Your task to perform on an android device: Go to privacy settings Image 0: 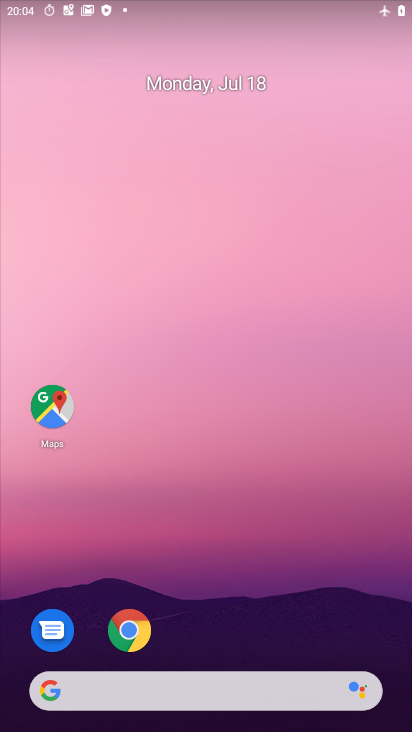
Step 0: drag from (248, 574) to (205, 260)
Your task to perform on an android device: Go to privacy settings Image 1: 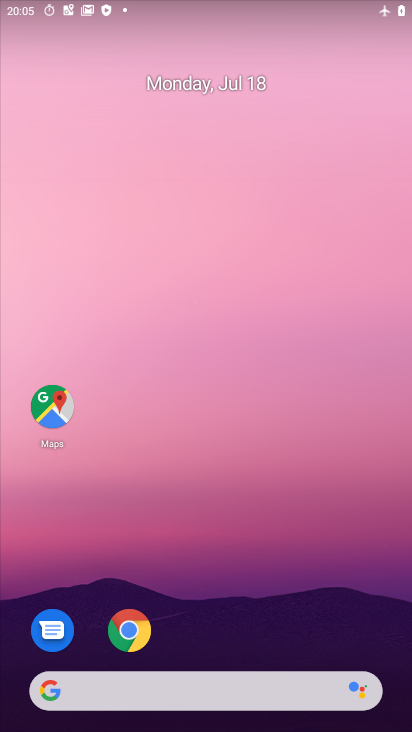
Step 1: drag from (248, 607) to (212, 155)
Your task to perform on an android device: Go to privacy settings Image 2: 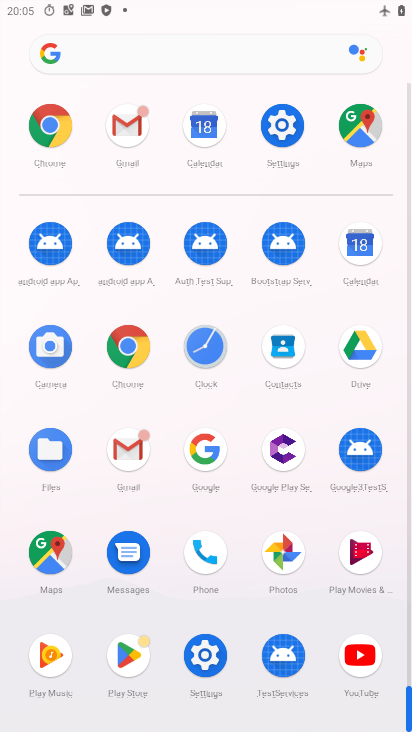
Step 2: click (296, 125)
Your task to perform on an android device: Go to privacy settings Image 3: 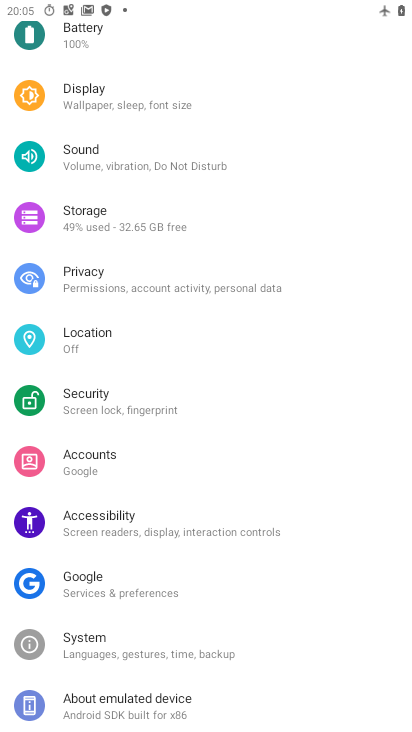
Step 3: click (82, 277)
Your task to perform on an android device: Go to privacy settings Image 4: 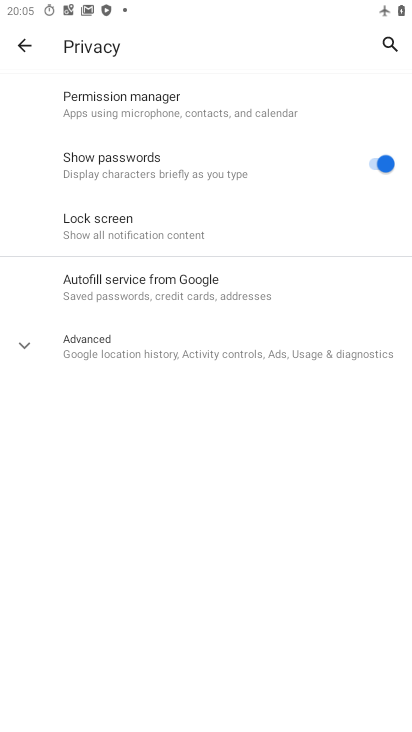
Step 4: task complete